Your task to perform on an android device: all mails in gmail Image 0: 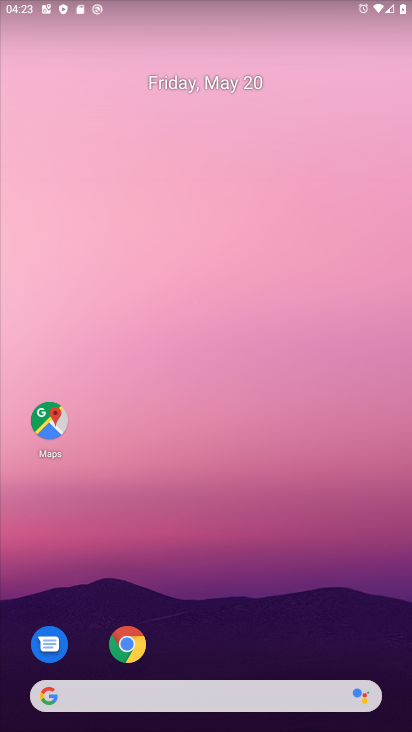
Step 0: drag from (278, 598) to (199, 138)
Your task to perform on an android device: all mails in gmail Image 1: 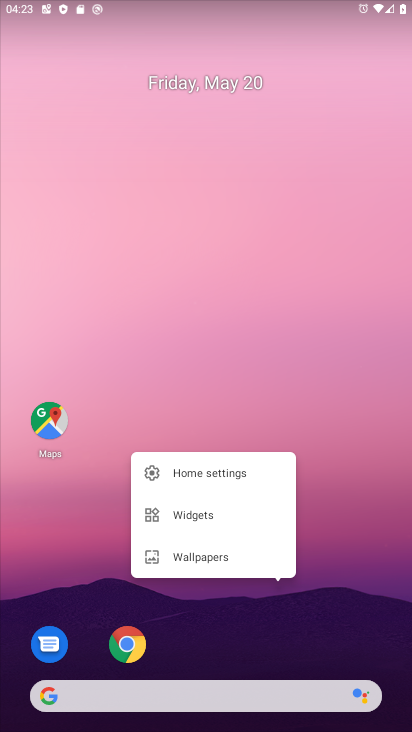
Step 1: click (199, 138)
Your task to perform on an android device: all mails in gmail Image 2: 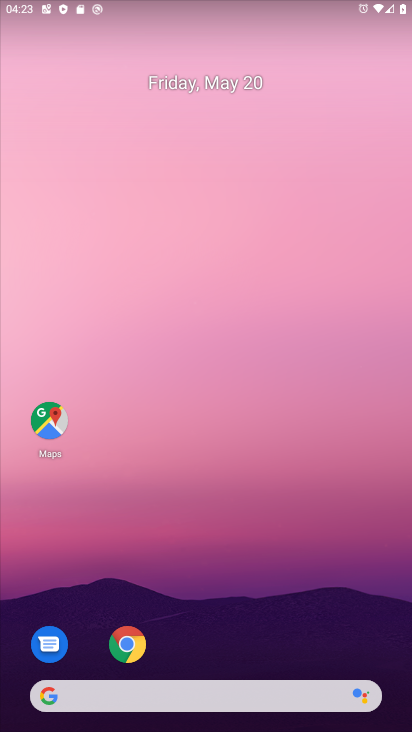
Step 2: drag from (266, 613) to (107, 0)
Your task to perform on an android device: all mails in gmail Image 3: 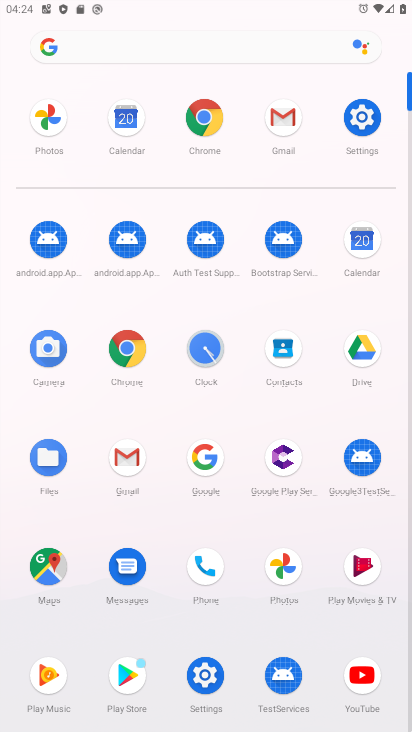
Step 3: click (144, 479)
Your task to perform on an android device: all mails in gmail Image 4: 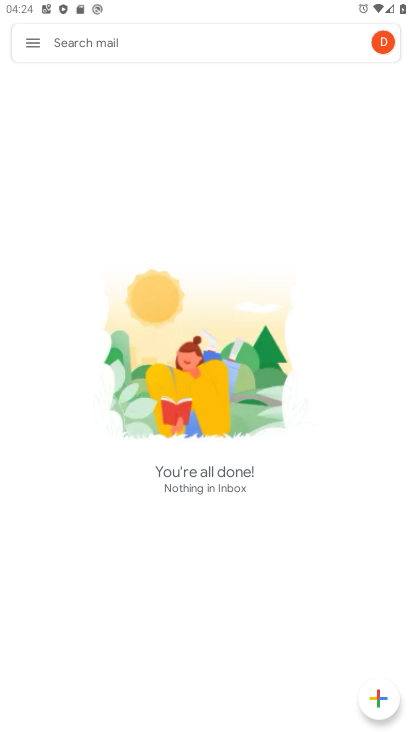
Step 4: task complete